Your task to perform on an android device: Open the calendar app, open the side menu, and click the "Day" option Image 0: 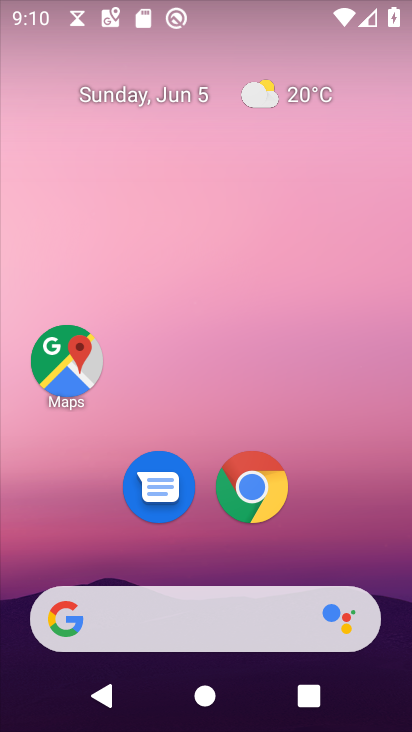
Step 0: drag from (315, 526) to (314, 195)
Your task to perform on an android device: Open the calendar app, open the side menu, and click the "Day" option Image 1: 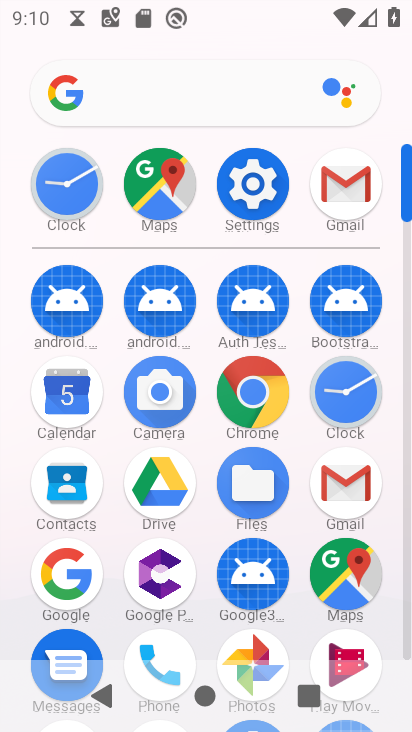
Step 1: click (67, 384)
Your task to perform on an android device: Open the calendar app, open the side menu, and click the "Day" option Image 2: 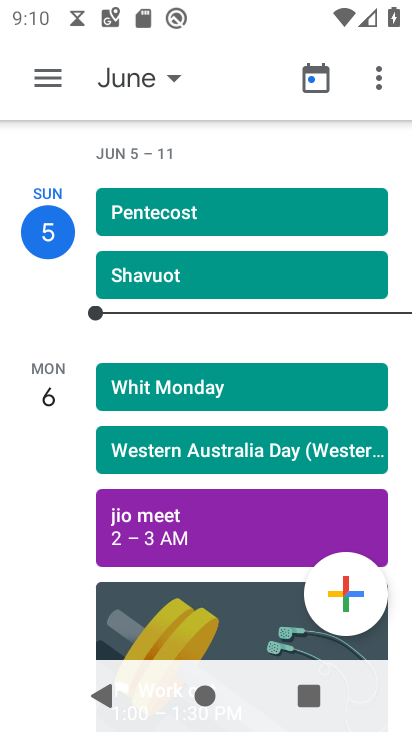
Step 2: click (57, 69)
Your task to perform on an android device: Open the calendar app, open the side menu, and click the "Day" option Image 3: 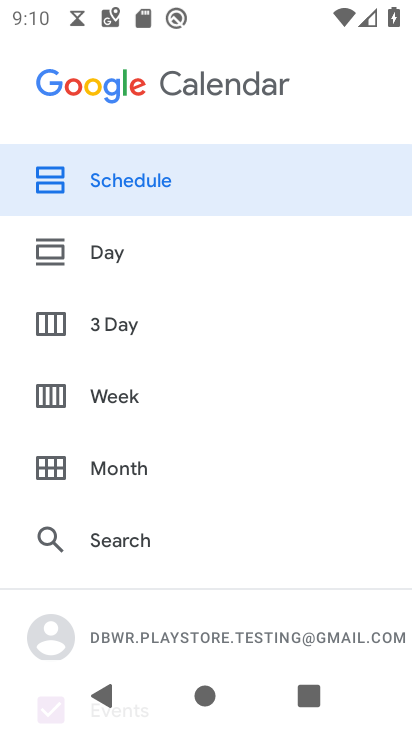
Step 3: click (81, 258)
Your task to perform on an android device: Open the calendar app, open the side menu, and click the "Day" option Image 4: 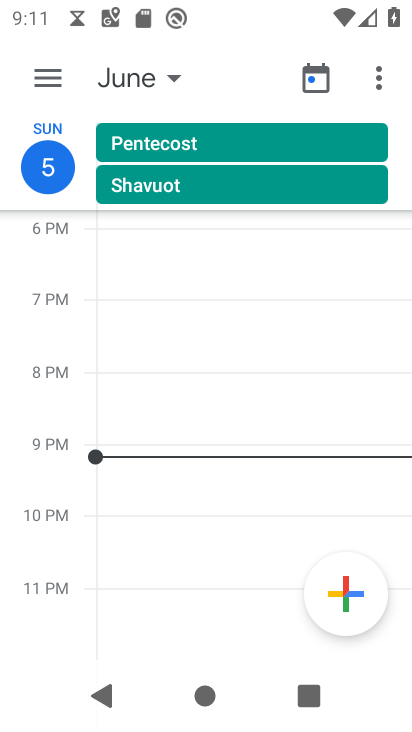
Step 4: task complete